Your task to perform on an android device: add a contact Image 0: 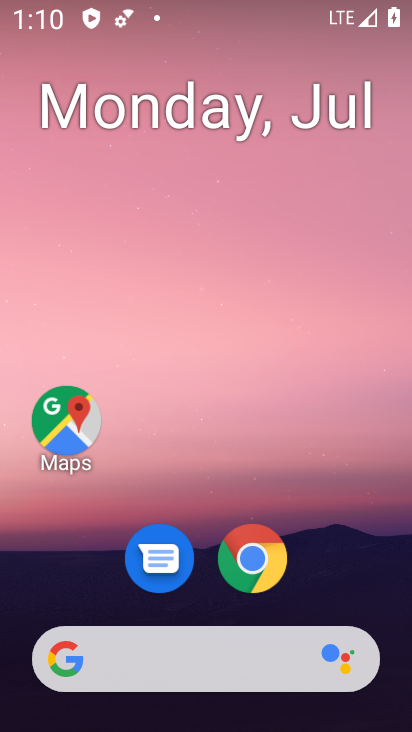
Step 0: press home button
Your task to perform on an android device: add a contact Image 1: 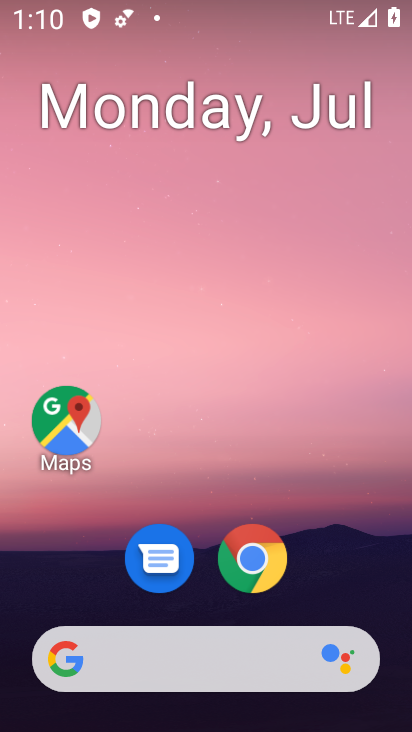
Step 1: drag from (363, 571) to (371, 135)
Your task to perform on an android device: add a contact Image 2: 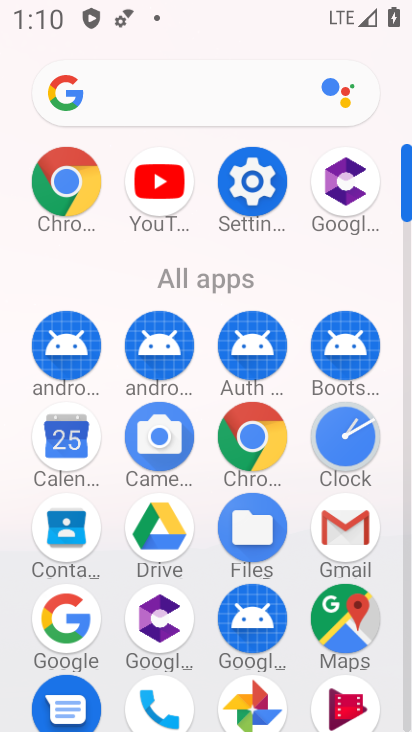
Step 2: click (73, 547)
Your task to perform on an android device: add a contact Image 3: 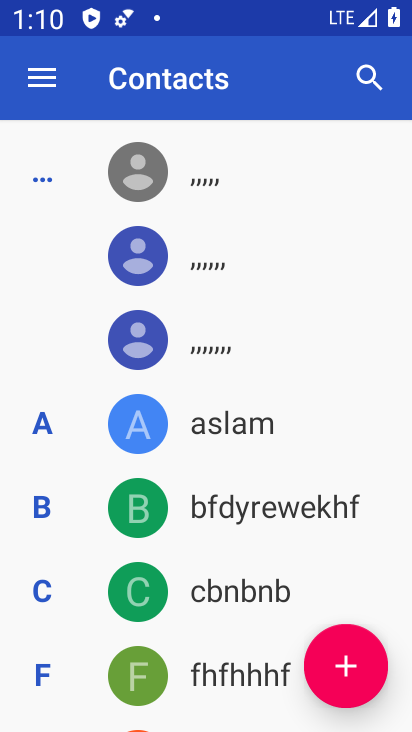
Step 3: click (344, 668)
Your task to perform on an android device: add a contact Image 4: 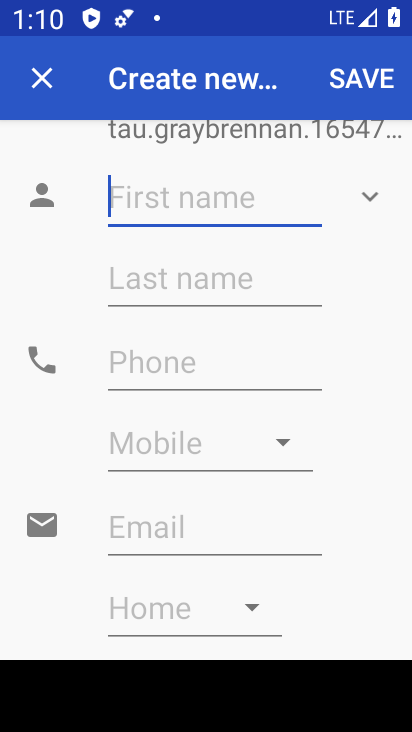
Step 4: type "lolo"
Your task to perform on an android device: add a contact Image 5: 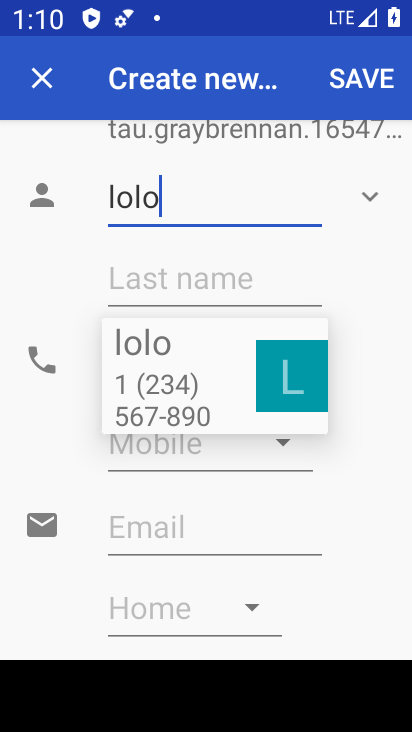
Step 5: click (407, 303)
Your task to perform on an android device: add a contact Image 6: 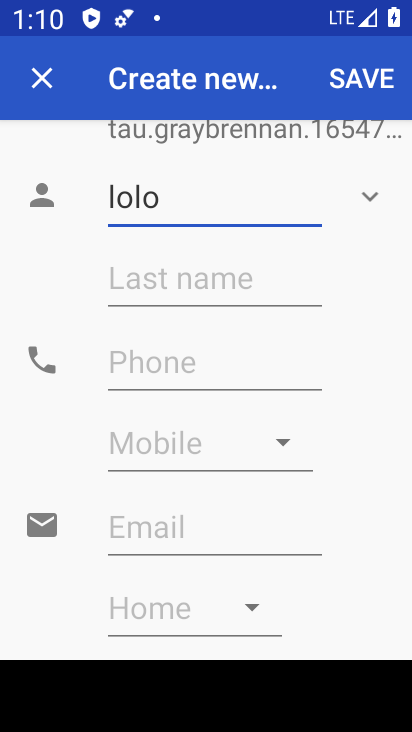
Step 6: click (244, 371)
Your task to perform on an android device: add a contact Image 7: 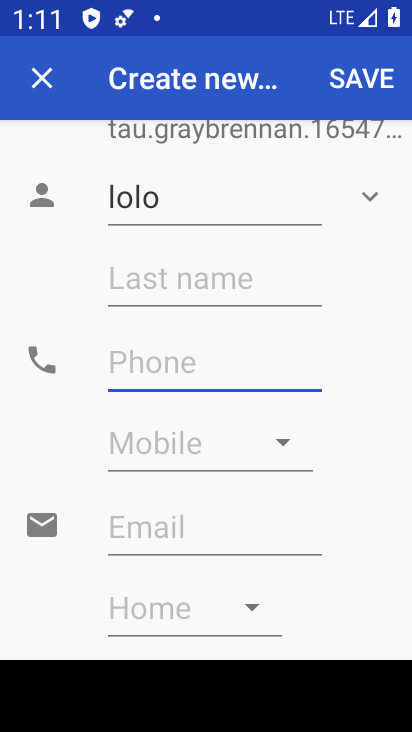
Step 7: type "12345678899"
Your task to perform on an android device: add a contact Image 8: 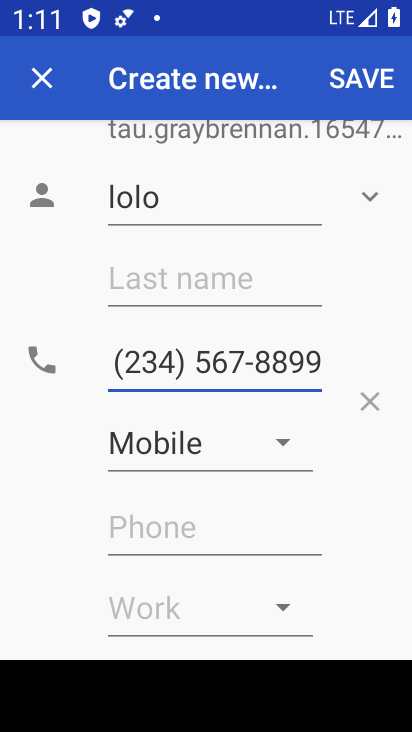
Step 8: click (387, 86)
Your task to perform on an android device: add a contact Image 9: 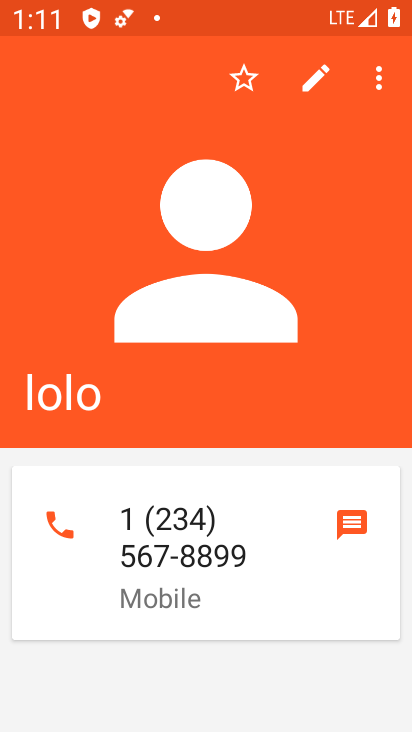
Step 9: task complete